Your task to perform on an android device: turn pop-ups on in chrome Image 0: 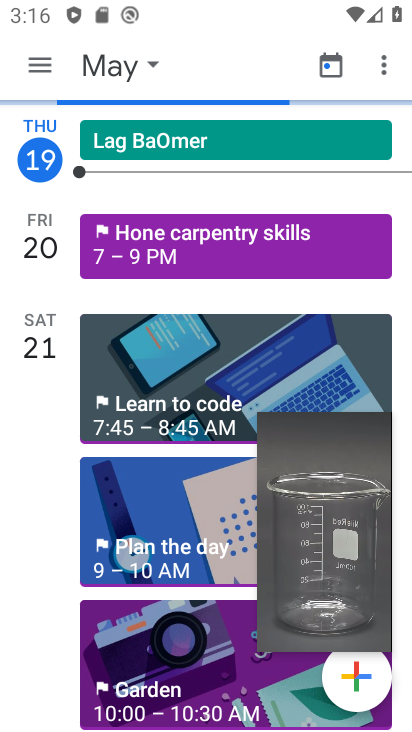
Step 0: press back button
Your task to perform on an android device: turn pop-ups on in chrome Image 1: 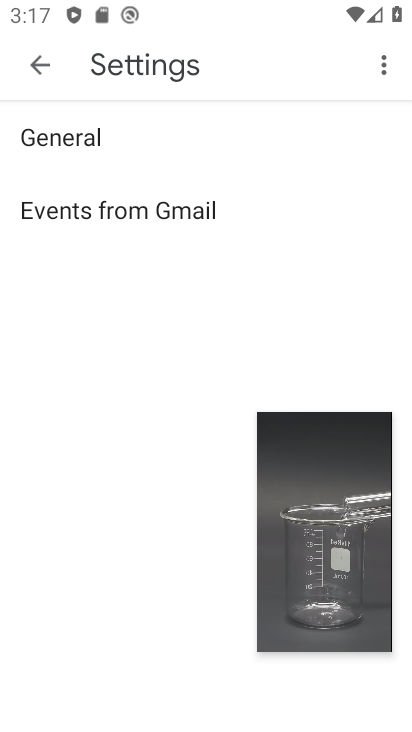
Step 1: press back button
Your task to perform on an android device: turn pop-ups on in chrome Image 2: 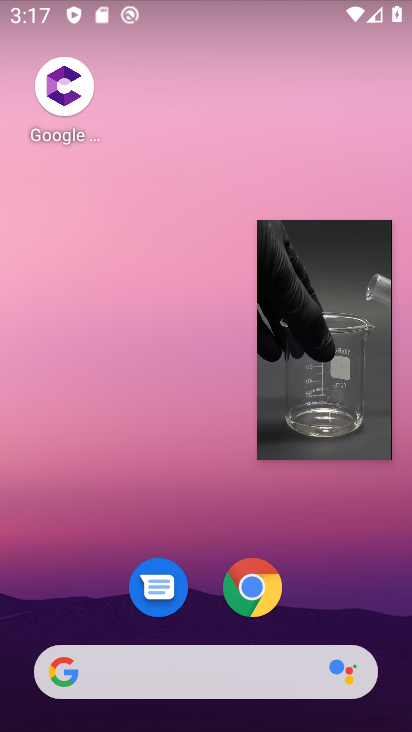
Step 2: click (356, 242)
Your task to perform on an android device: turn pop-ups on in chrome Image 3: 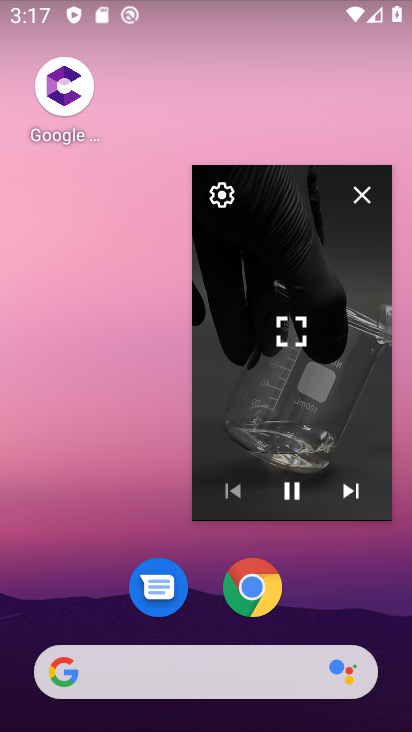
Step 3: click (360, 195)
Your task to perform on an android device: turn pop-ups on in chrome Image 4: 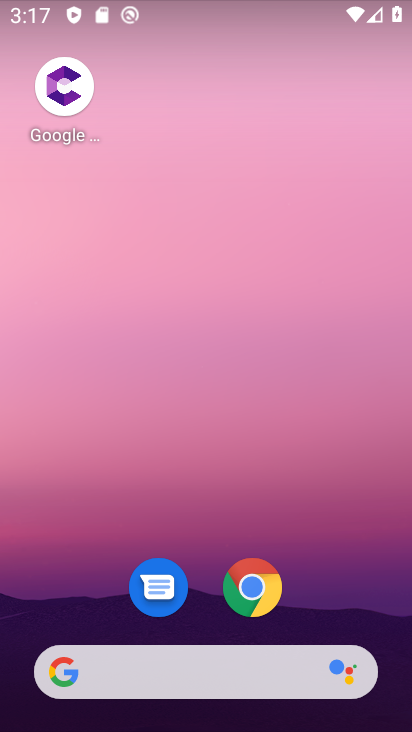
Step 4: click (247, 586)
Your task to perform on an android device: turn pop-ups on in chrome Image 5: 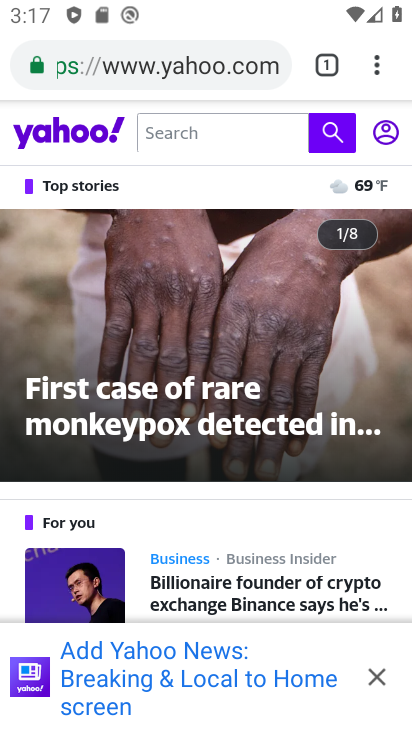
Step 5: drag from (372, 64) to (181, 631)
Your task to perform on an android device: turn pop-ups on in chrome Image 6: 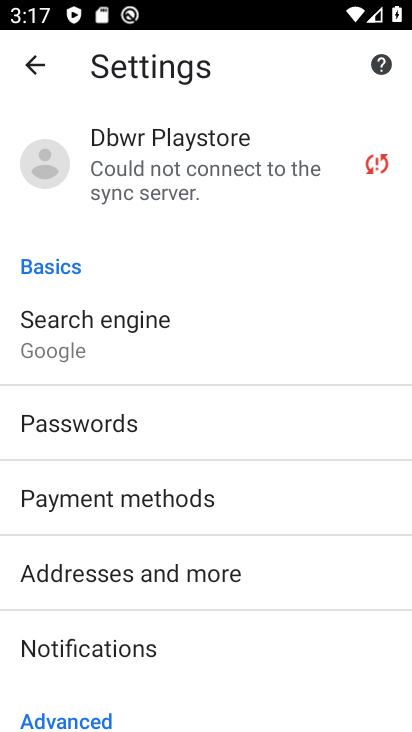
Step 6: drag from (252, 557) to (255, 194)
Your task to perform on an android device: turn pop-ups on in chrome Image 7: 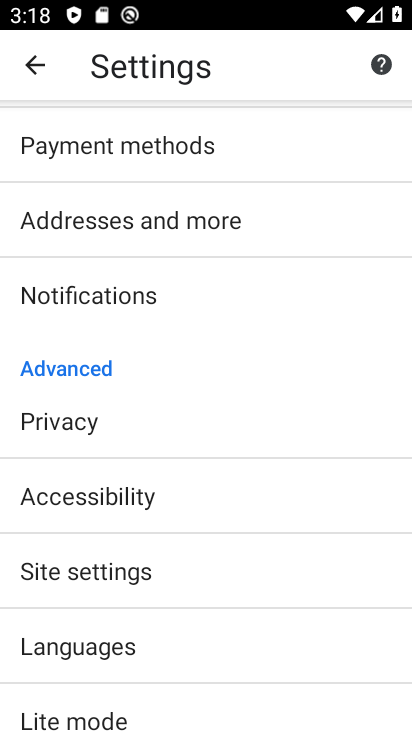
Step 7: click (163, 567)
Your task to perform on an android device: turn pop-ups on in chrome Image 8: 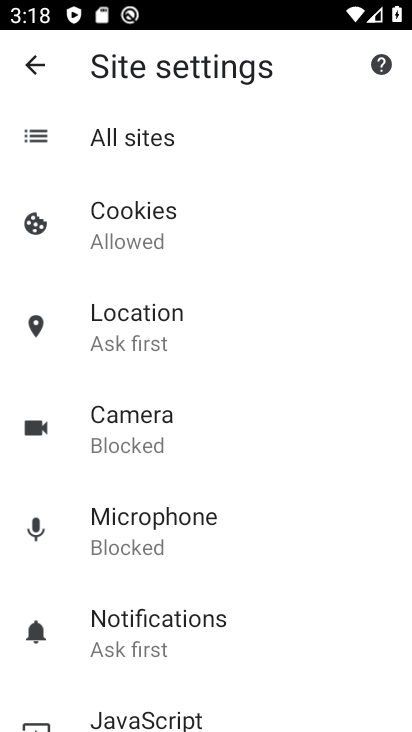
Step 8: drag from (199, 584) to (225, 161)
Your task to perform on an android device: turn pop-ups on in chrome Image 9: 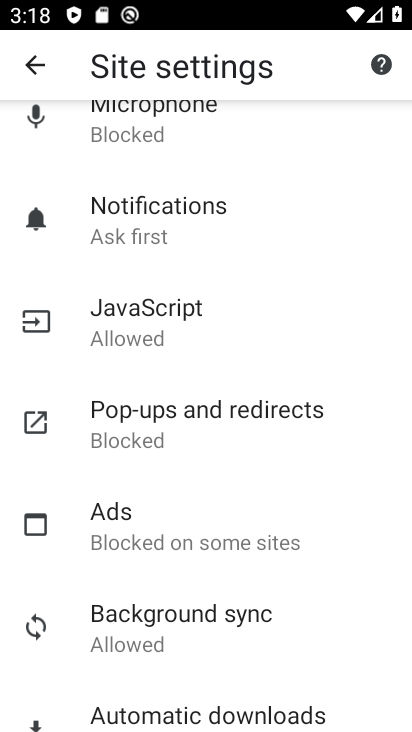
Step 9: click (183, 429)
Your task to perform on an android device: turn pop-ups on in chrome Image 10: 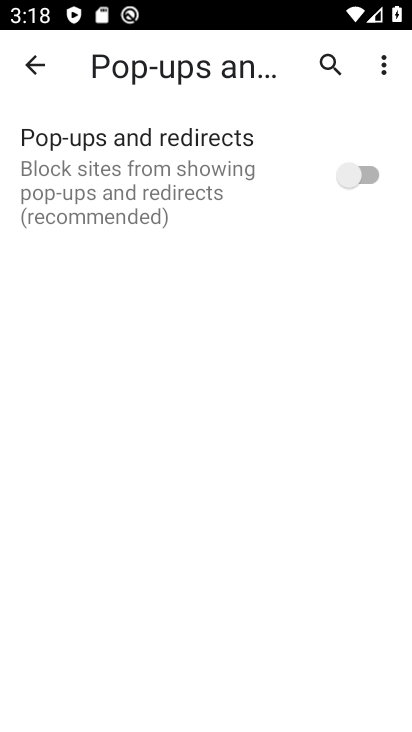
Step 10: click (345, 166)
Your task to perform on an android device: turn pop-ups on in chrome Image 11: 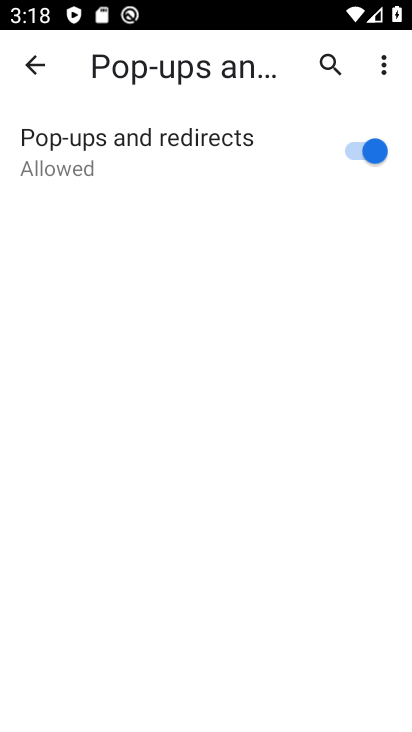
Step 11: task complete